Your task to perform on an android device: open a bookmark in the chrome app Image 0: 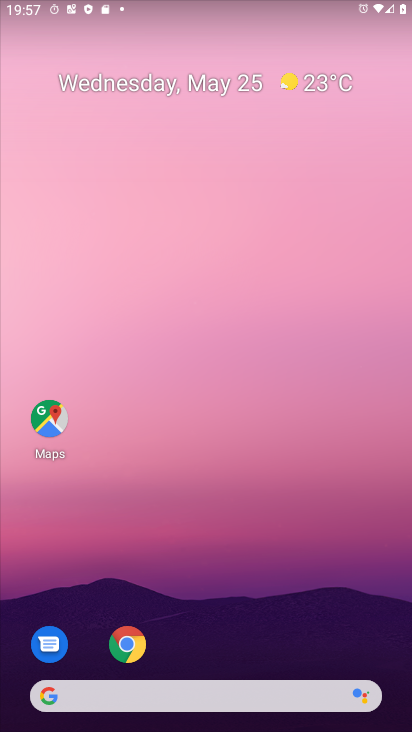
Step 0: drag from (286, 713) to (287, 204)
Your task to perform on an android device: open a bookmark in the chrome app Image 1: 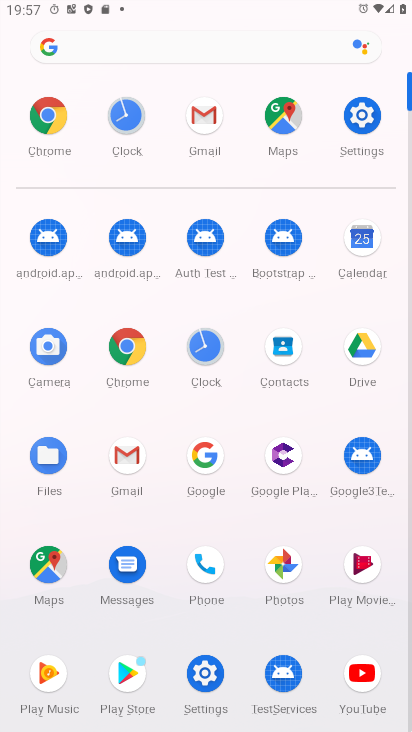
Step 1: click (130, 353)
Your task to perform on an android device: open a bookmark in the chrome app Image 2: 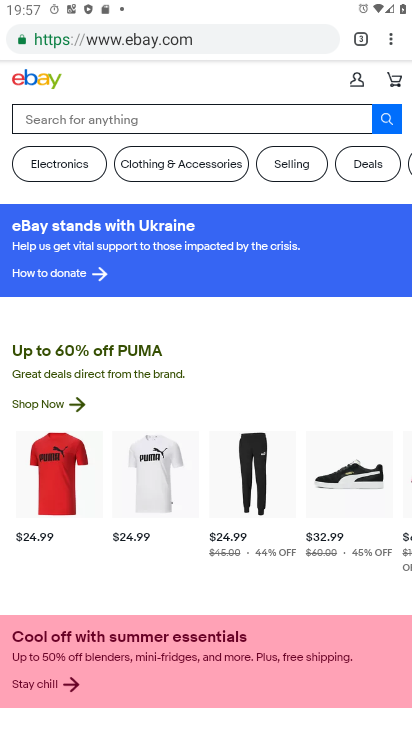
Step 2: click (390, 42)
Your task to perform on an android device: open a bookmark in the chrome app Image 3: 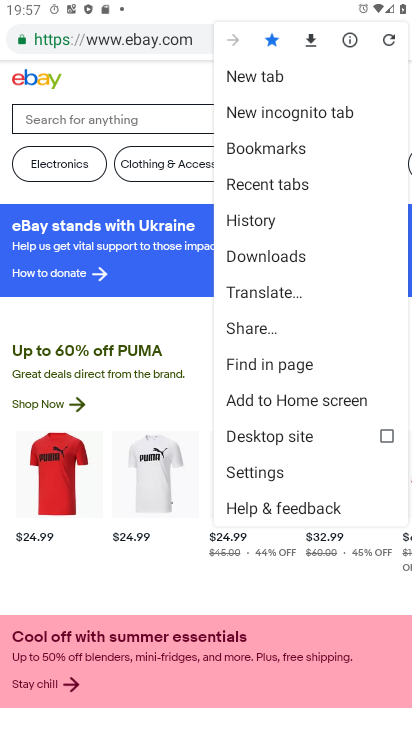
Step 3: click (290, 157)
Your task to perform on an android device: open a bookmark in the chrome app Image 4: 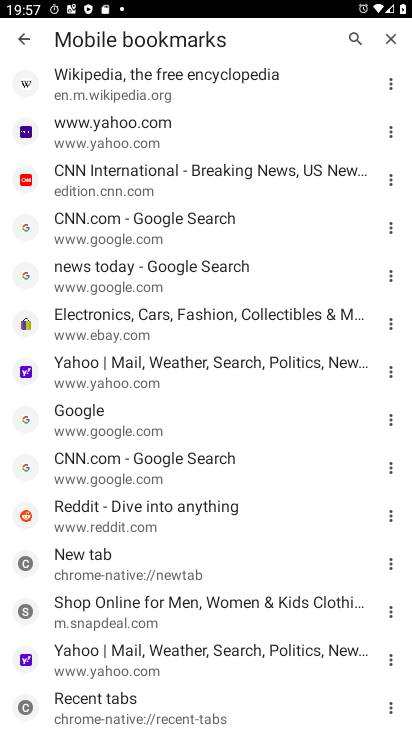
Step 4: click (120, 414)
Your task to perform on an android device: open a bookmark in the chrome app Image 5: 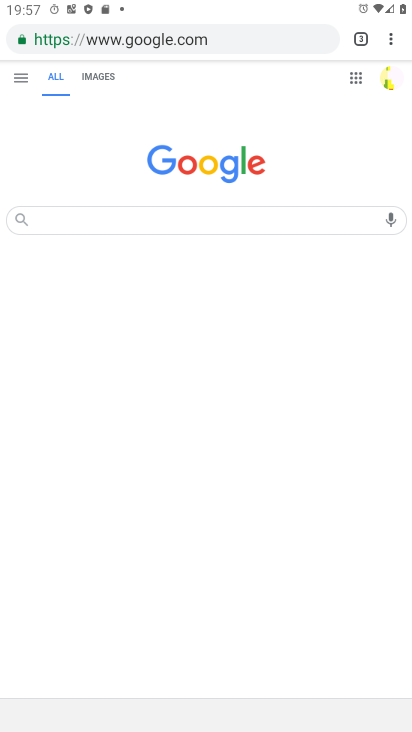
Step 5: task complete